Your task to perform on an android device: Go to location settings Image 0: 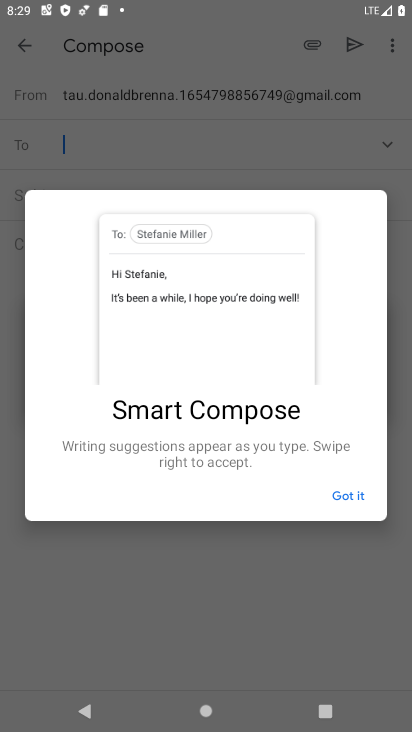
Step 0: press home button
Your task to perform on an android device: Go to location settings Image 1: 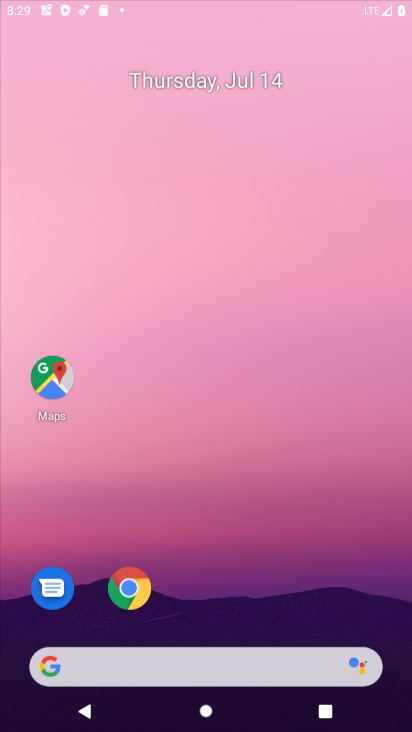
Step 1: drag from (381, 683) to (72, 166)
Your task to perform on an android device: Go to location settings Image 2: 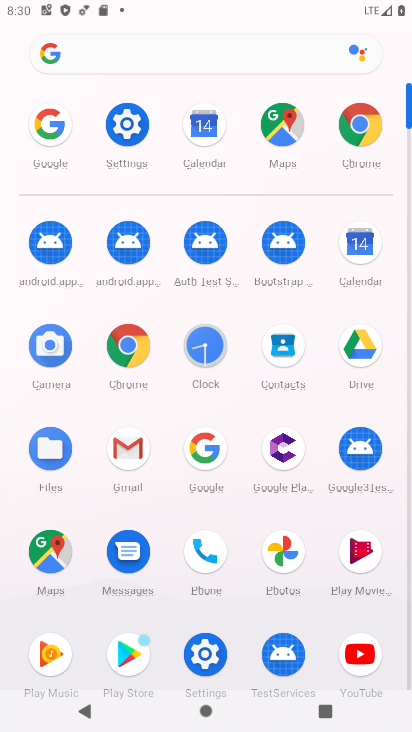
Step 2: click (193, 648)
Your task to perform on an android device: Go to location settings Image 3: 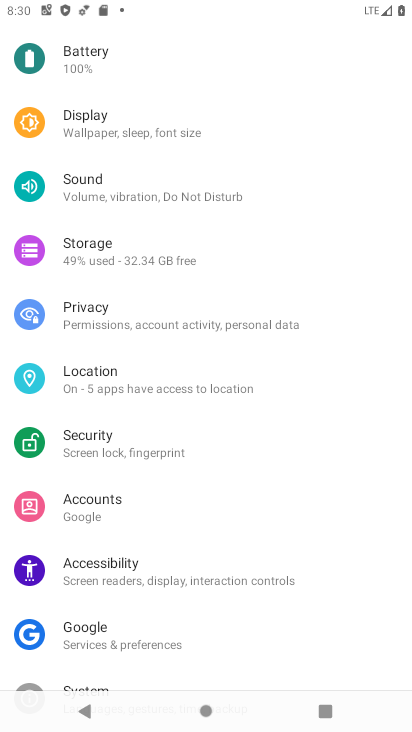
Step 3: click (97, 388)
Your task to perform on an android device: Go to location settings Image 4: 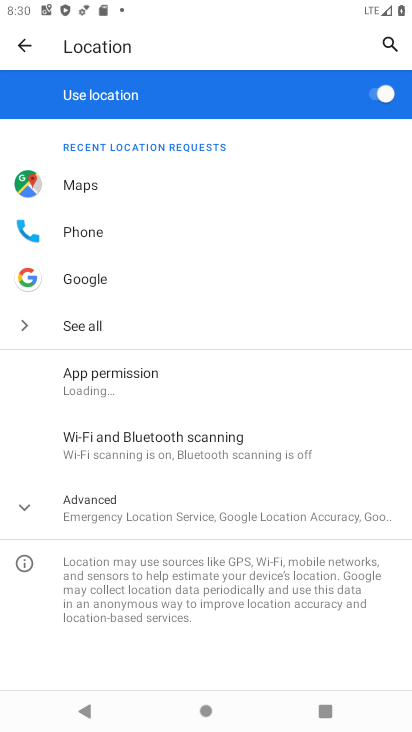
Step 4: task complete